Your task to perform on an android device: Show me popular videos on Youtube Image 0: 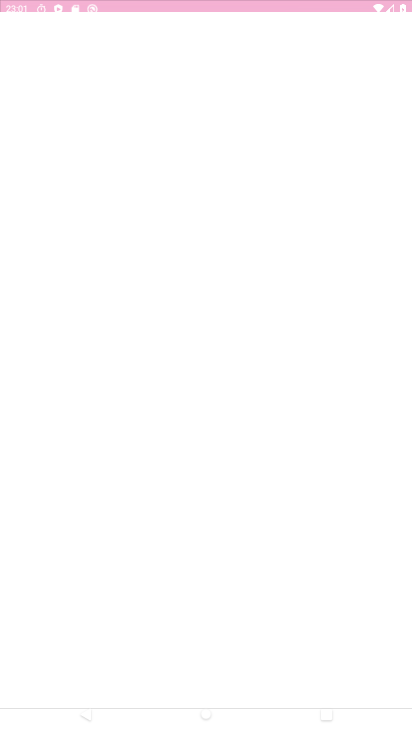
Step 0: click (237, 376)
Your task to perform on an android device: Show me popular videos on Youtube Image 1: 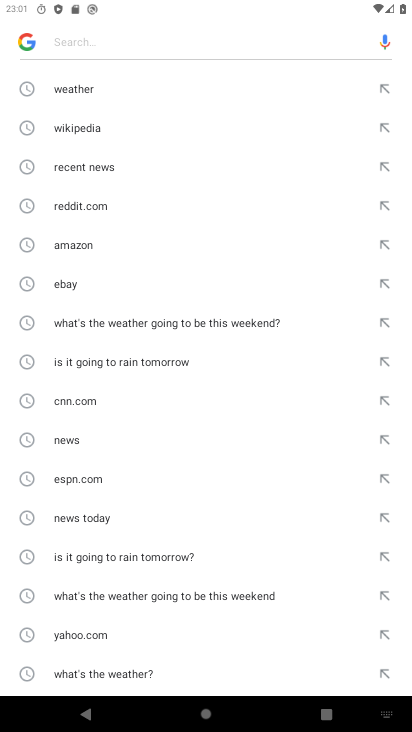
Step 1: press home button
Your task to perform on an android device: Show me popular videos on Youtube Image 2: 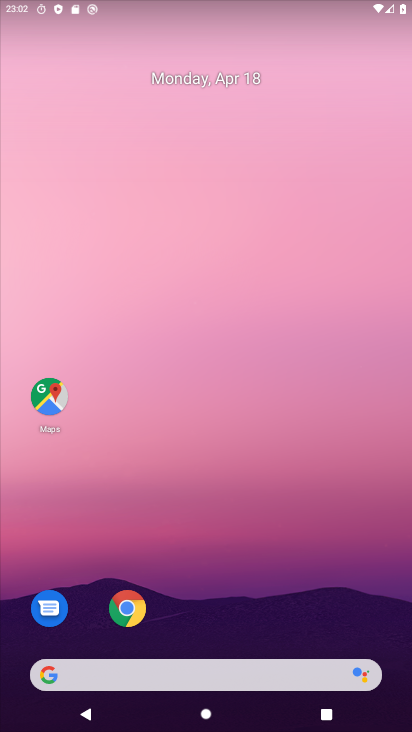
Step 2: drag from (218, 611) to (241, 214)
Your task to perform on an android device: Show me popular videos on Youtube Image 3: 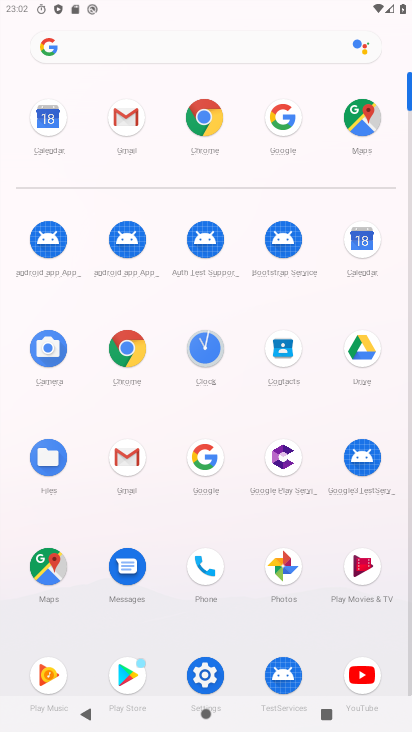
Step 3: click (362, 674)
Your task to perform on an android device: Show me popular videos on Youtube Image 4: 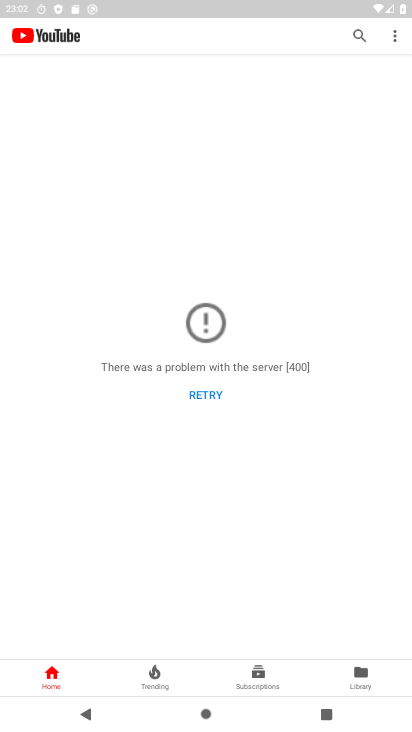
Step 4: click (188, 399)
Your task to perform on an android device: Show me popular videos on Youtube Image 5: 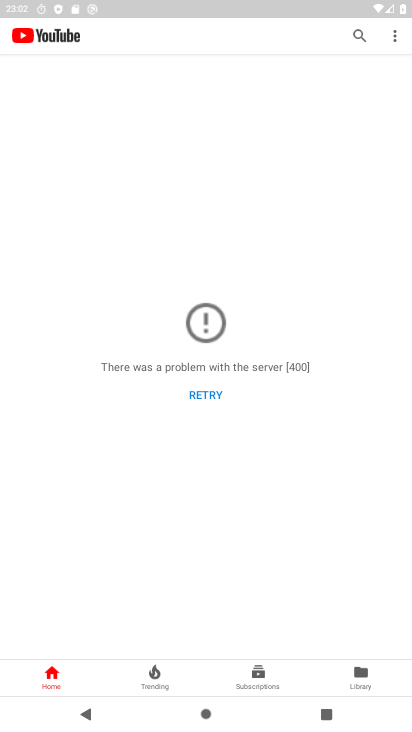
Step 5: click (210, 396)
Your task to perform on an android device: Show me popular videos on Youtube Image 6: 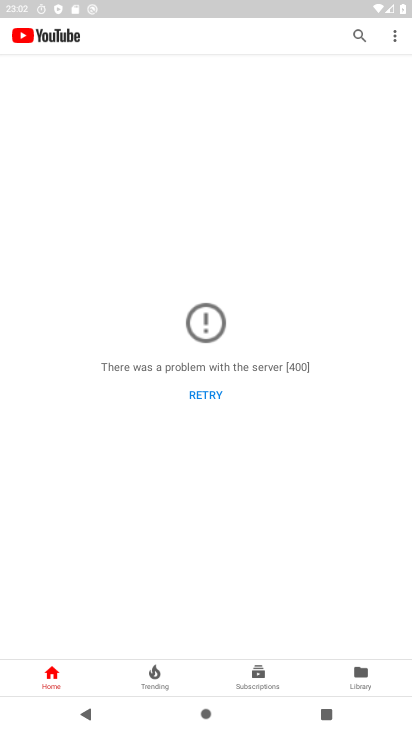
Step 6: click (210, 395)
Your task to perform on an android device: Show me popular videos on Youtube Image 7: 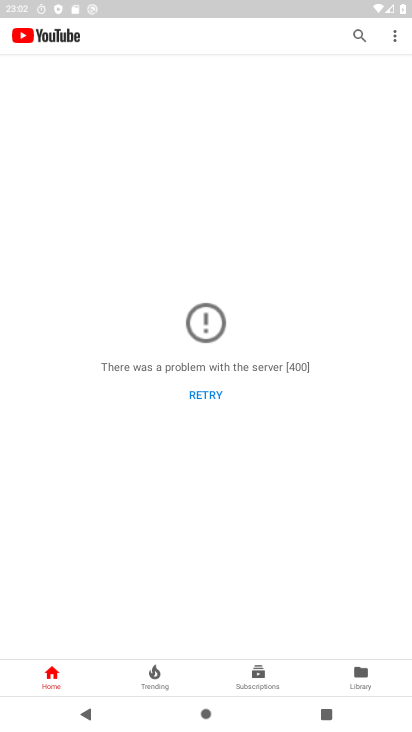
Step 7: task complete